Your task to perform on an android device: Show me recent news Image 0: 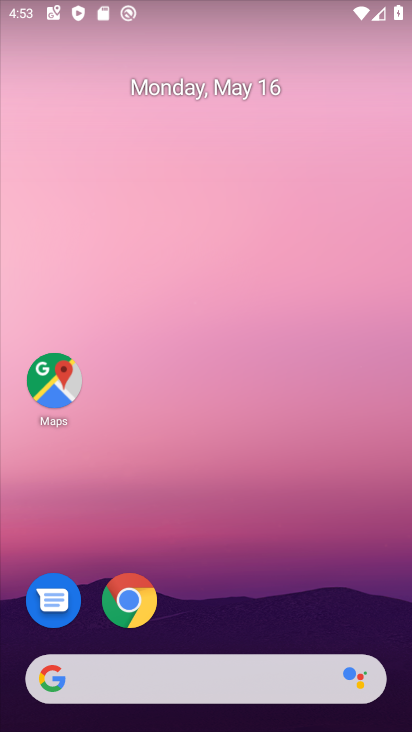
Step 0: drag from (220, 642) to (147, 132)
Your task to perform on an android device: Show me recent news Image 1: 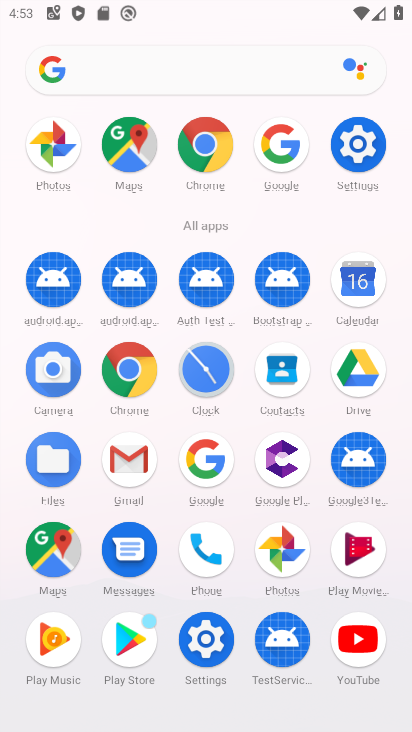
Step 1: click (215, 450)
Your task to perform on an android device: Show me recent news Image 2: 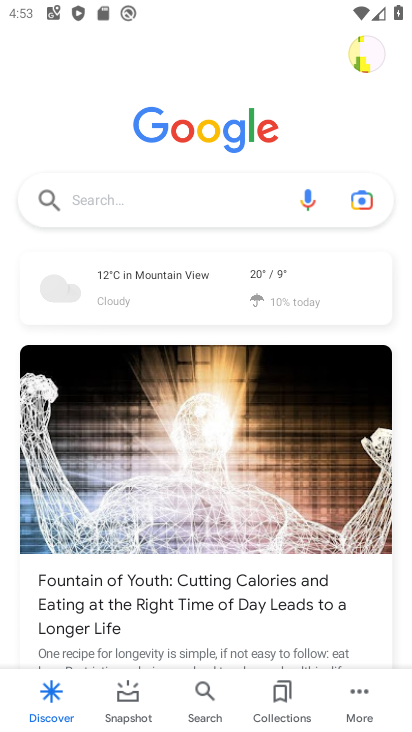
Step 2: task complete